Your task to perform on an android device: toggle show notifications on the lock screen Image 0: 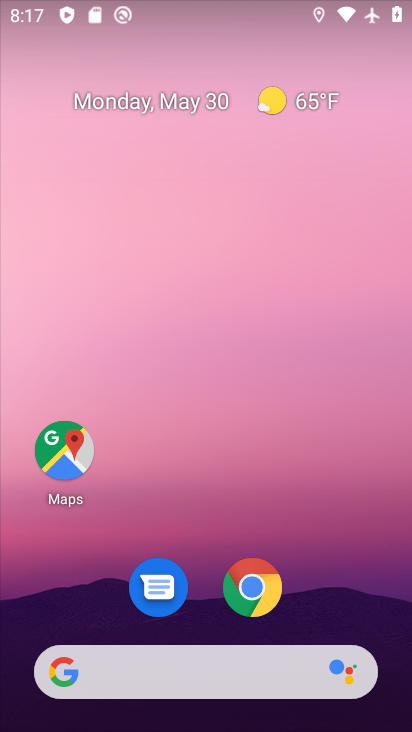
Step 0: press home button
Your task to perform on an android device: toggle show notifications on the lock screen Image 1: 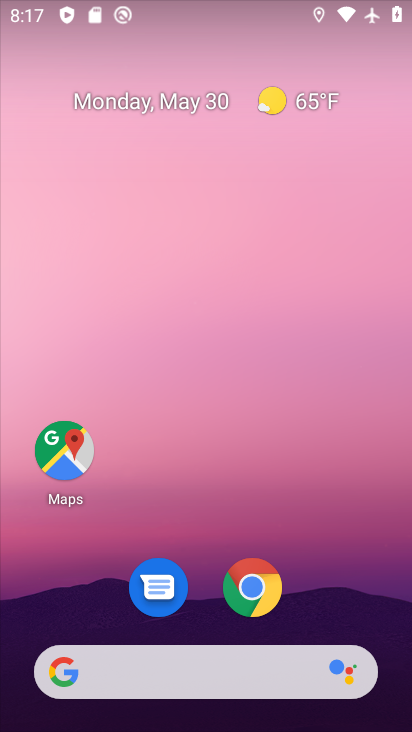
Step 1: drag from (154, 673) to (317, 176)
Your task to perform on an android device: toggle show notifications on the lock screen Image 2: 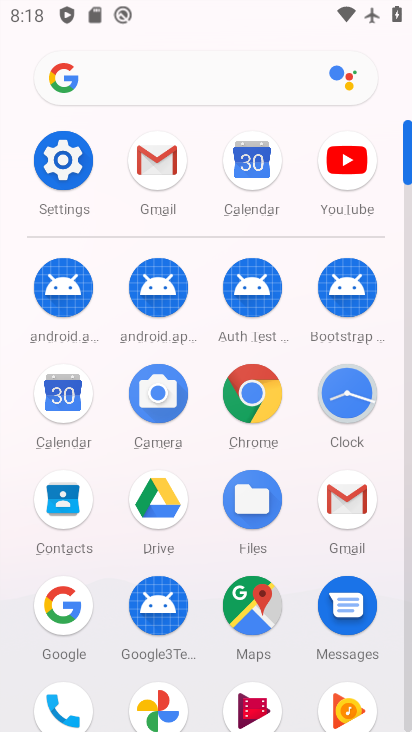
Step 2: click (58, 177)
Your task to perform on an android device: toggle show notifications on the lock screen Image 3: 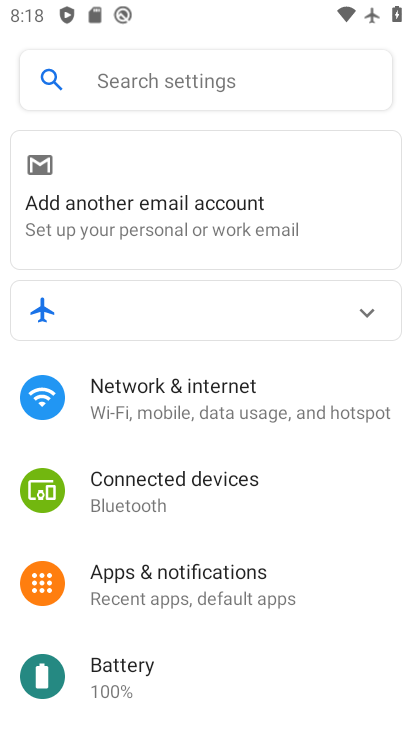
Step 3: click (189, 575)
Your task to perform on an android device: toggle show notifications on the lock screen Image 4: 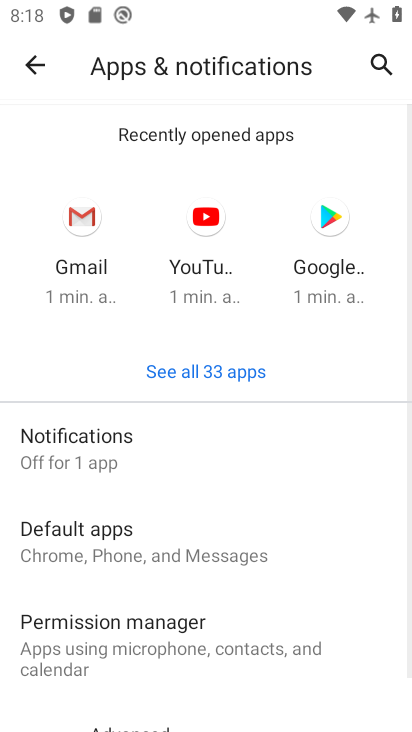
Step 4: click (96, 439)
Your task to perform on an android device: toggle show notifications on the lock screen Image 5: 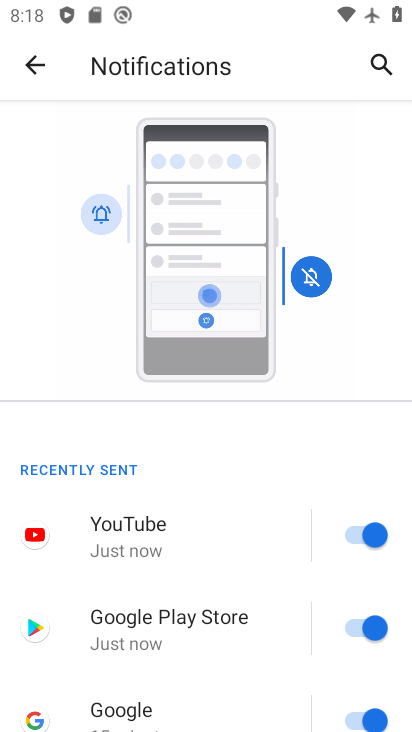
Step 5: drag from (225, 684) to (306, 170)
Your task to perform on an android device: toggle show notifications on the lock screen Image 6: 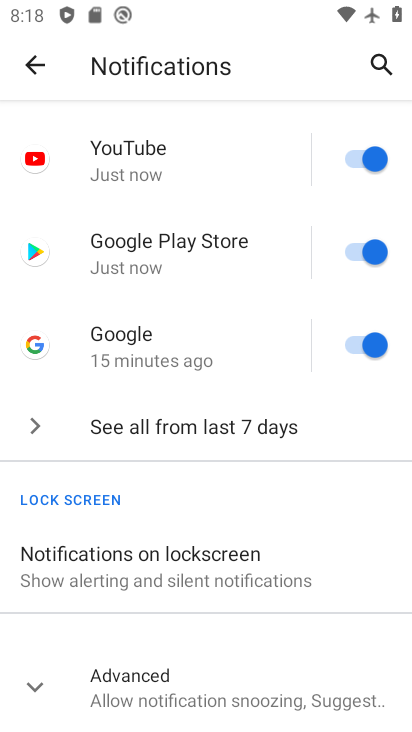
Step 6: click (191, 552)
Your task to perform on an android device: toggle show notifications on the lock screen Image 7: 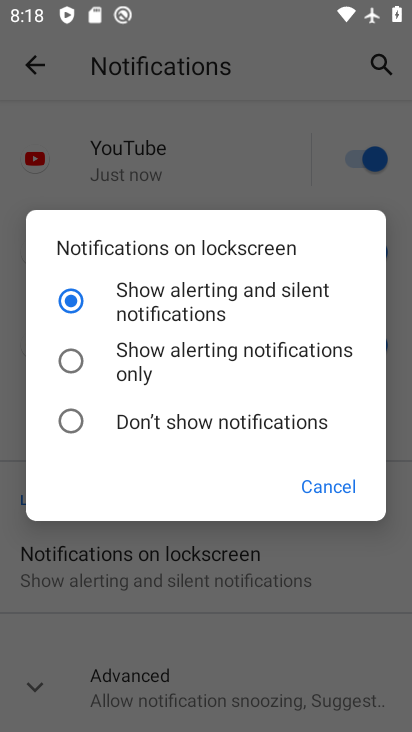
Step 7: click (73, 416)
Your task to perform on an android device: toggle show notifications on the lock screen Image 8: 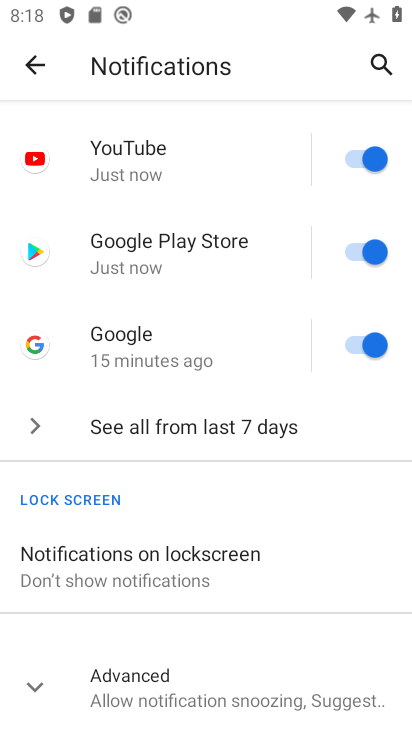
Step 8: task complete